Your task to perform on an android device: choose inbox layout in the gmail app Image 0: 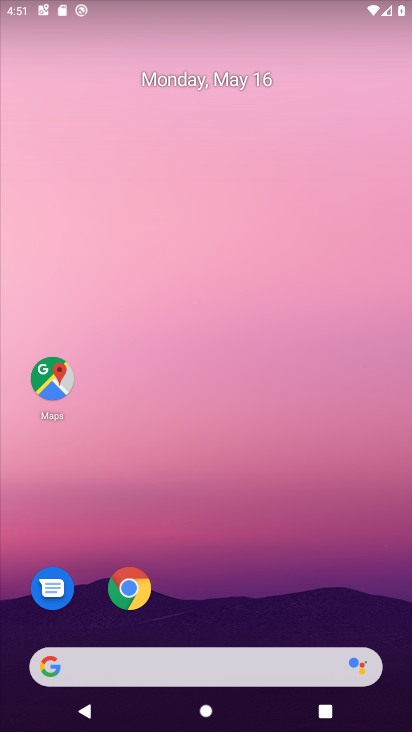
Step 0: drag from (267, 525) to (201, 43)
Your task to perform on an android device: choose inbox layout in the gmail app Image 1: 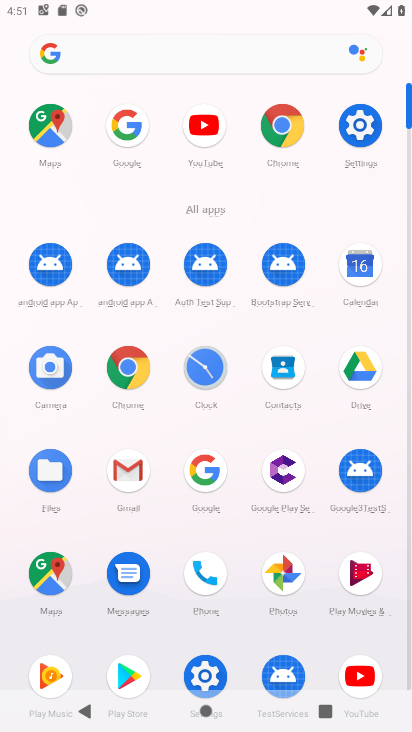
Step 1: click (119, 465)
Your task to perform on an android device: choose inbox layout in the gmail app Image 2: 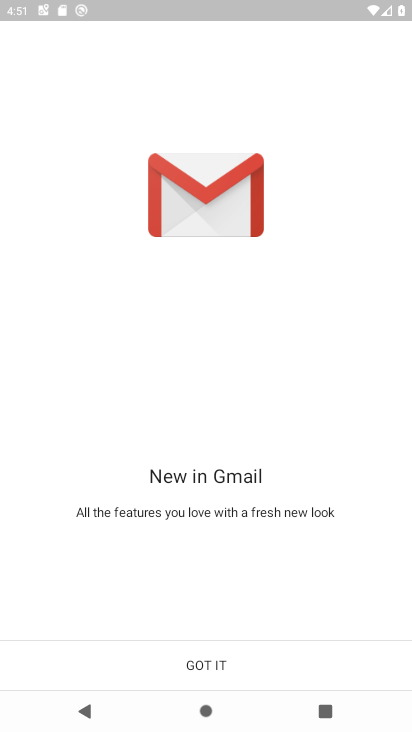
Step 2: click (214, 654)
Your task to perform on an android device: choose inbox layout in the gmail app Image 3: 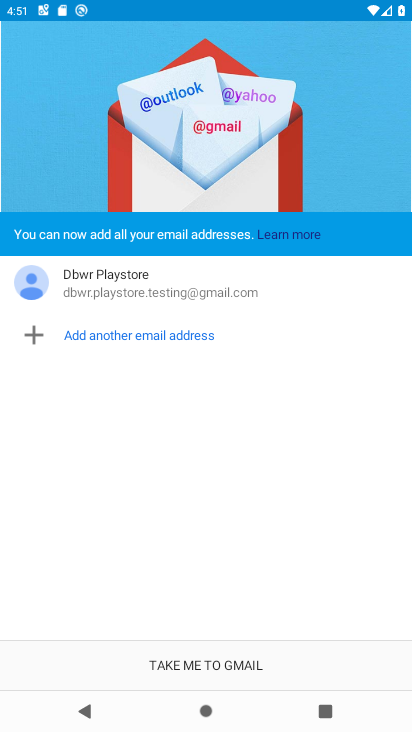
Step 3: click (231, 665)
Your task to perform on an android device: choose inbox layout in the gmail app Image 4: 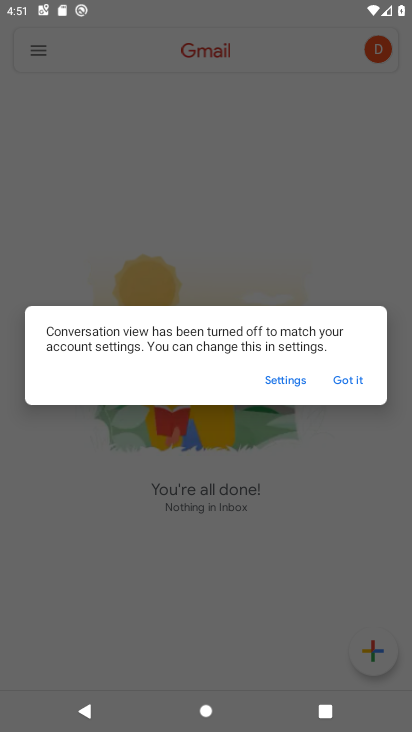
Step 4: click (335, 381)
Your task to perform on an android device: choose inbox layout in the gmail app Image 5: 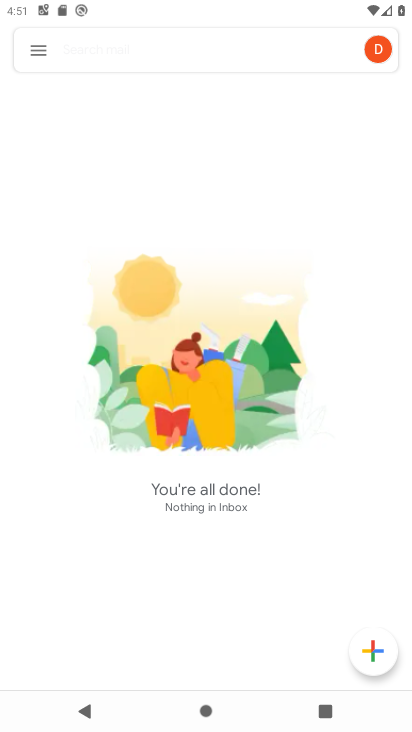
Step 5: click (35, 53)
Your task to perform on an android device: choose inbox layout in the gmail app Image 6: 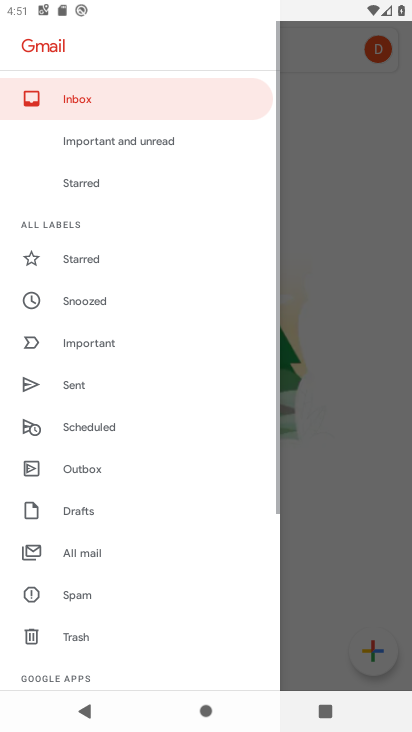
Step 6: drag from (121, 623) to (120, 375)
Your task to perform on an android device: choose inbox layout in the gmail app Image 7: 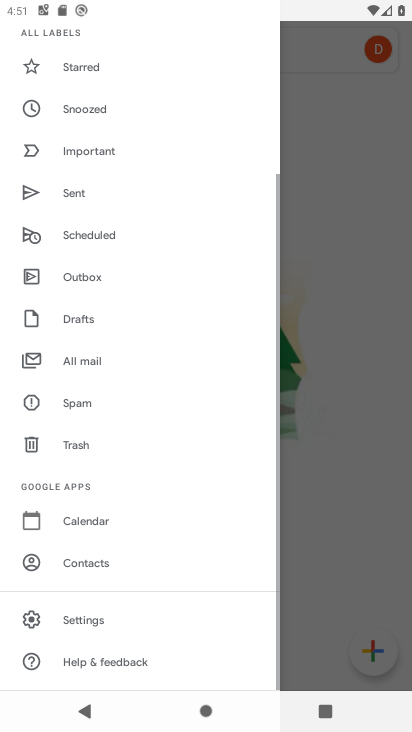
Step 7: click (106, 628)
Your task to perform on an android device: choose inbox layout in the gmail app Image 8: 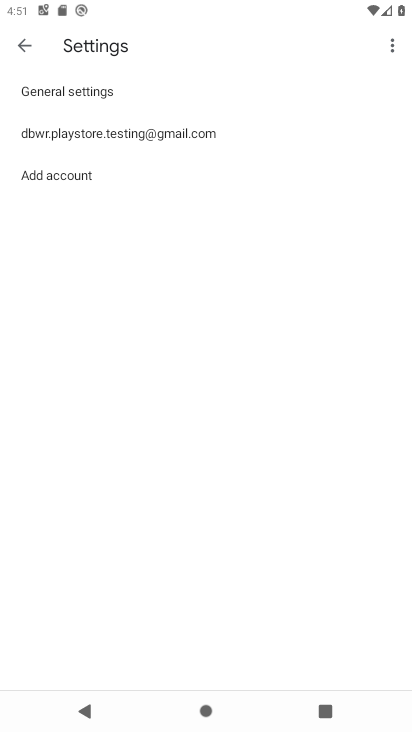
Step 8: click (73, 131)
Your task to perform on an android device: choose inbox layout in the gmail app Image 9: 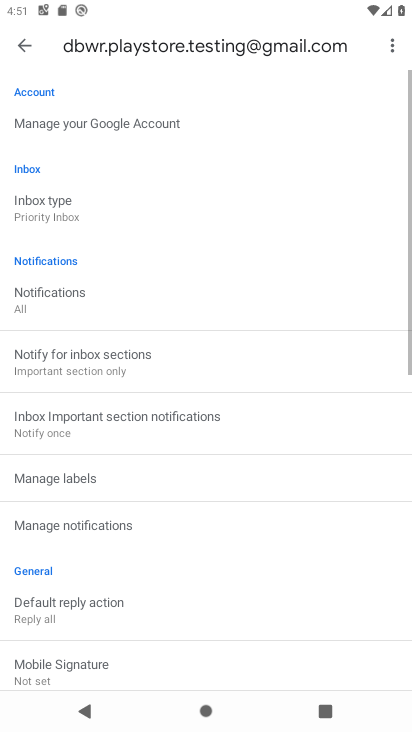
Step 9: click (62, 216)
Your task to perform on an android device: choose inbox layout in the gmail app Image 10: 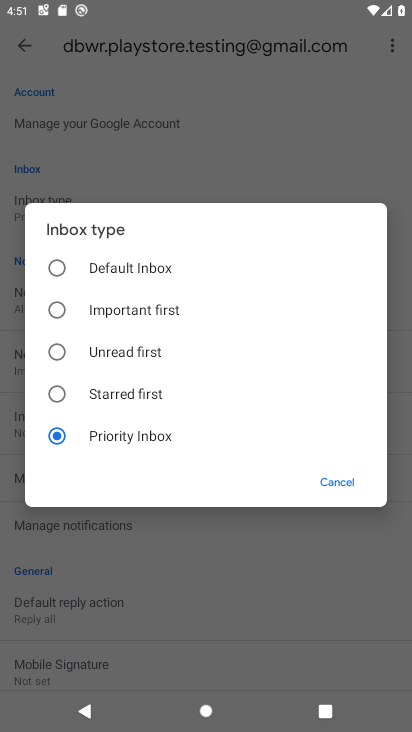
Step 10: click (117, 321)
Your task to perform on an android device: choose inbox layout in the gmail app Image 11: 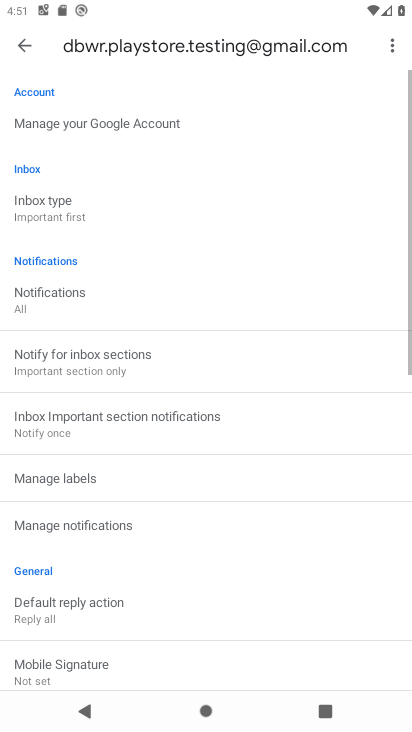
Step 11: task complete